Your task to perform on an android device: allow notifications from all sites in the chrome app Image 0: 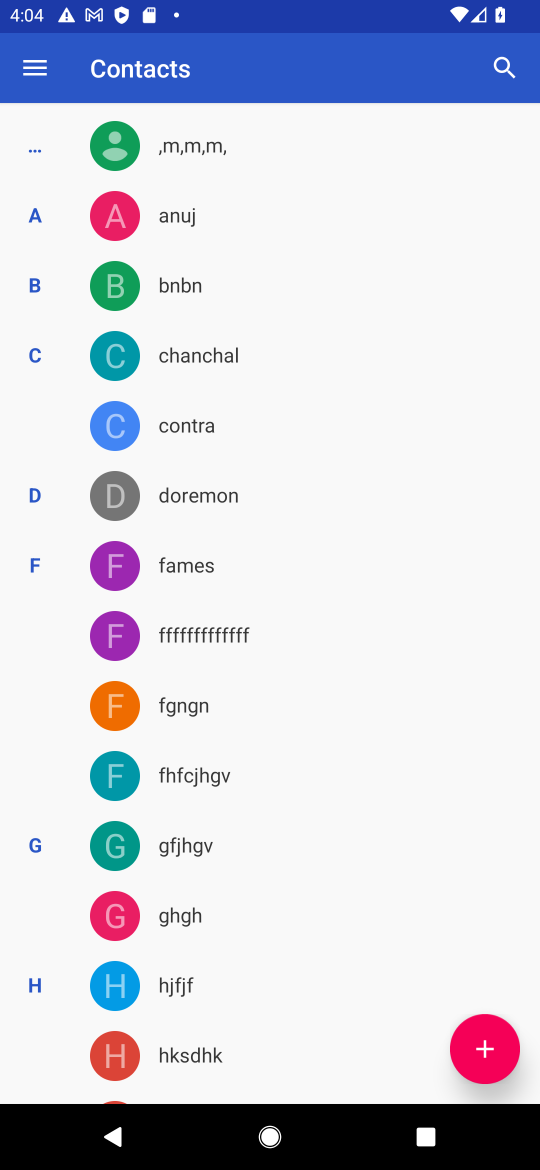
Step 0: press home button
Your task to perform on an android device: allow notifications from all sites in the chrome app Image 1: 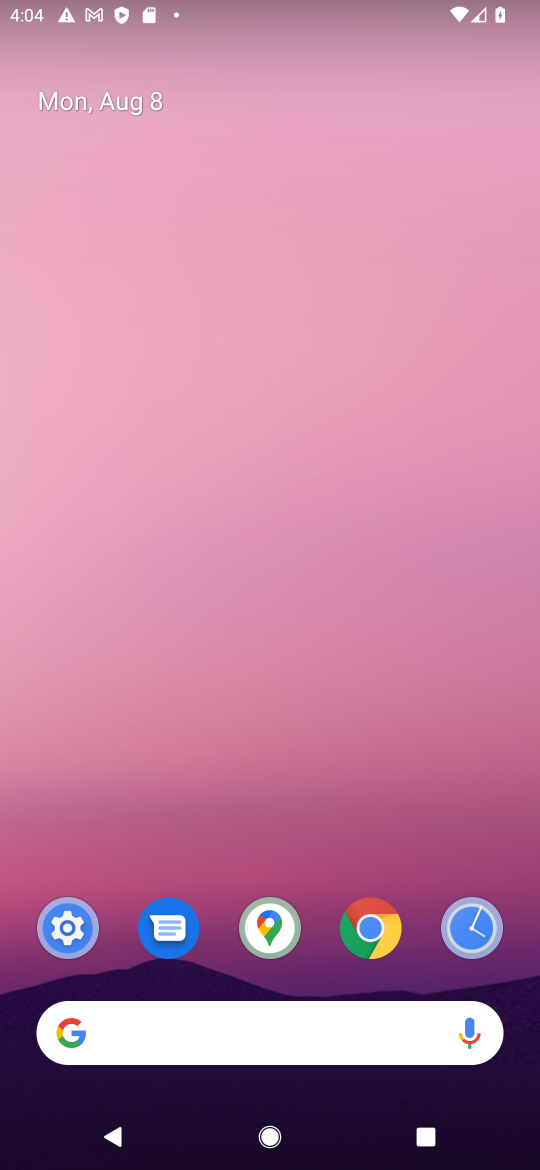
Step 1: click (431, 859)
Your task to perform on an android device: allow notifications from all sites in the chrome app Image 2: 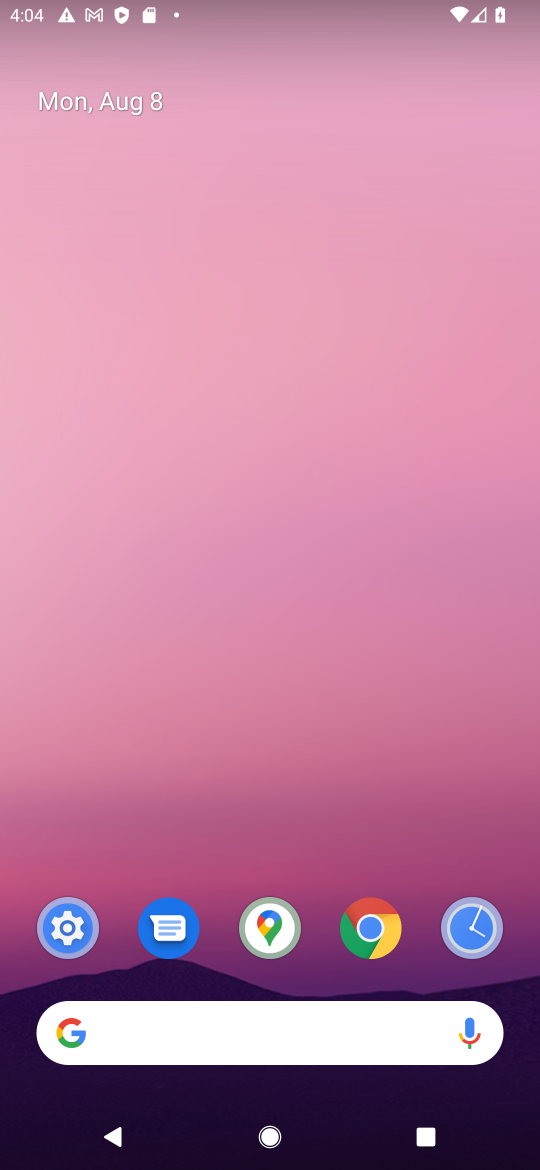
Step 2: click (387, 915)
Your task to perform on an android device: allow notifications from all sites in the chrome app Image 3: 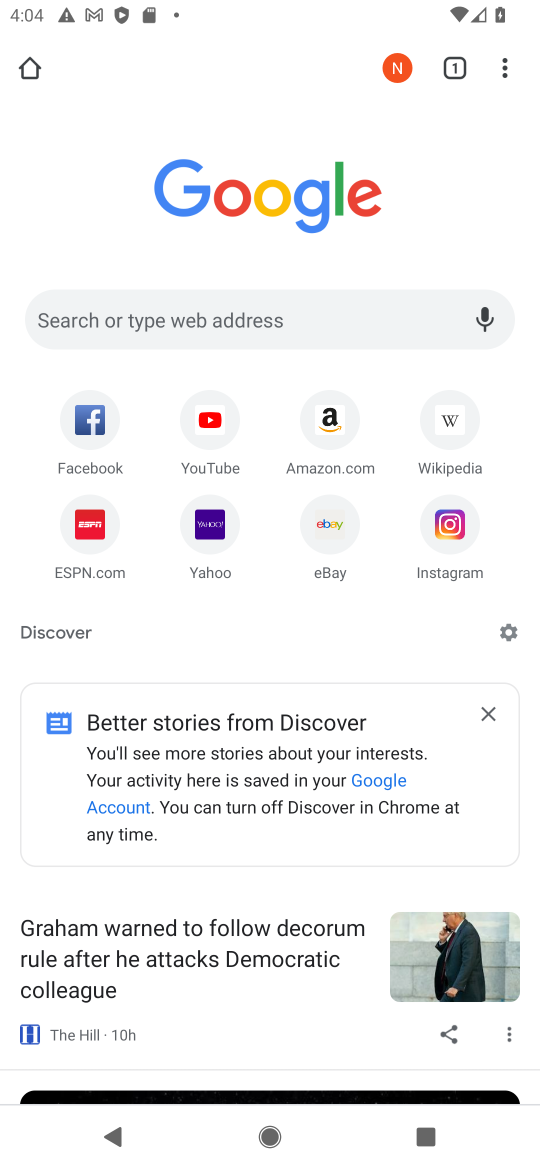
Step 3: click (502, 79)
Your task to perform on an android device: allow notifications from all sites in the chrome app Image 4: 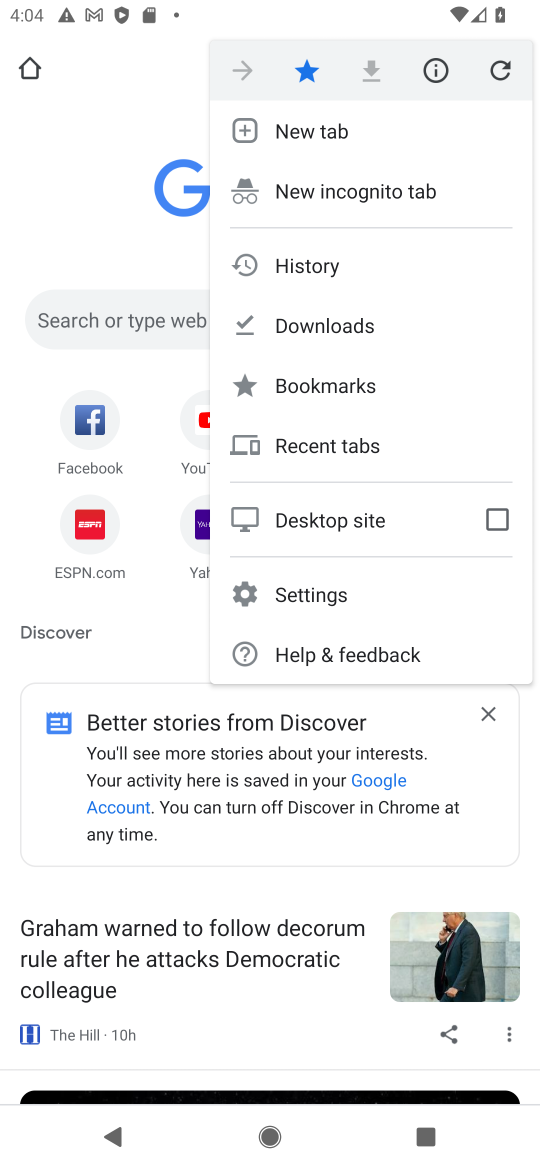
Step 4: click (335, 582)
Your task to perform on an android device: allow notifications from all sites in the chrome app Image 5: 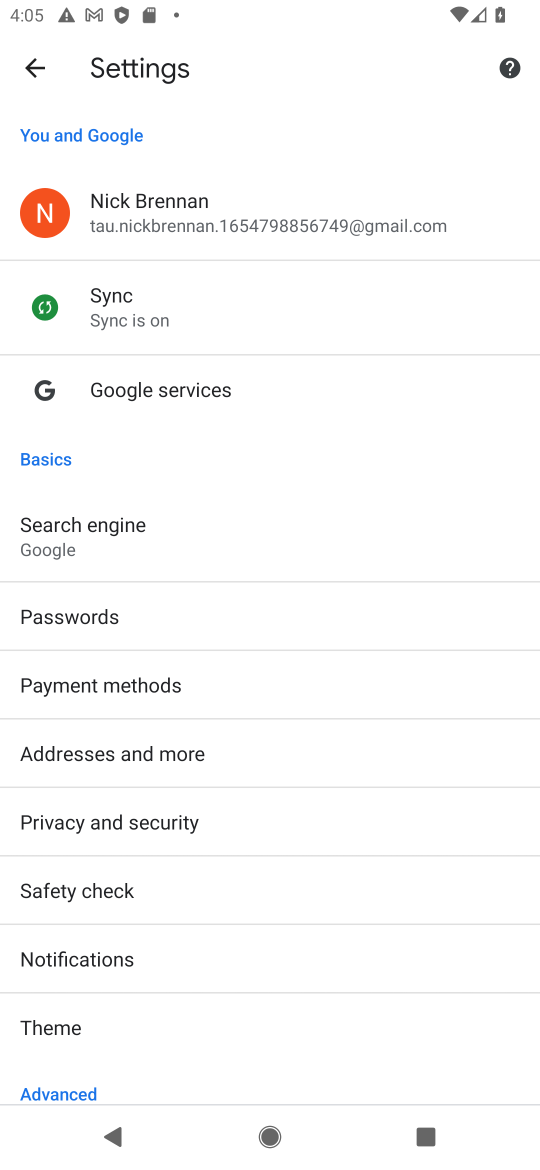
Step 5: drag from (285, 1041) to (280, 293)
Your task to perform on an android device: allow notifications from all sites in the chrome app Image 6: 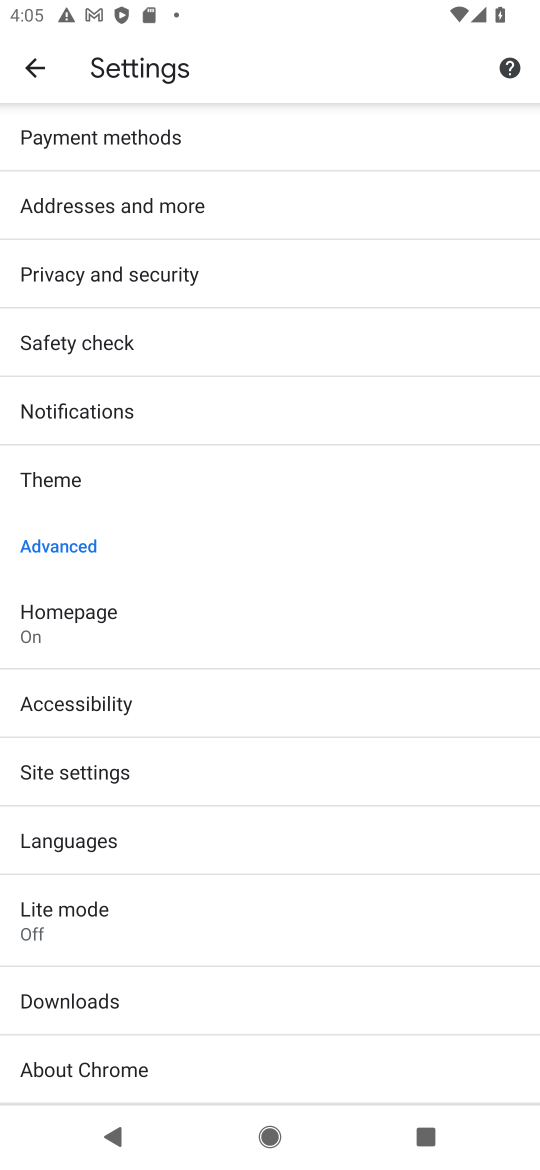
Step 6: click (157, 790)
Your task to perform on an android device: allow notifications from all sites in the chrome app Image 7: 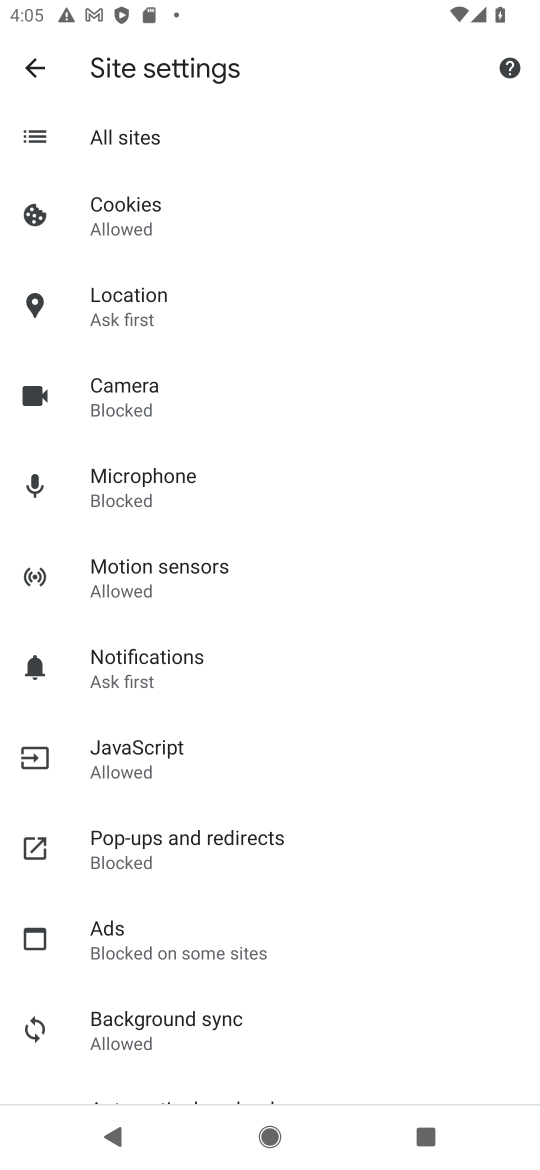
Step 7: click (176, 674)
Your task to perform on an android device: allow notifications from all sites in the chrome app Image 8: 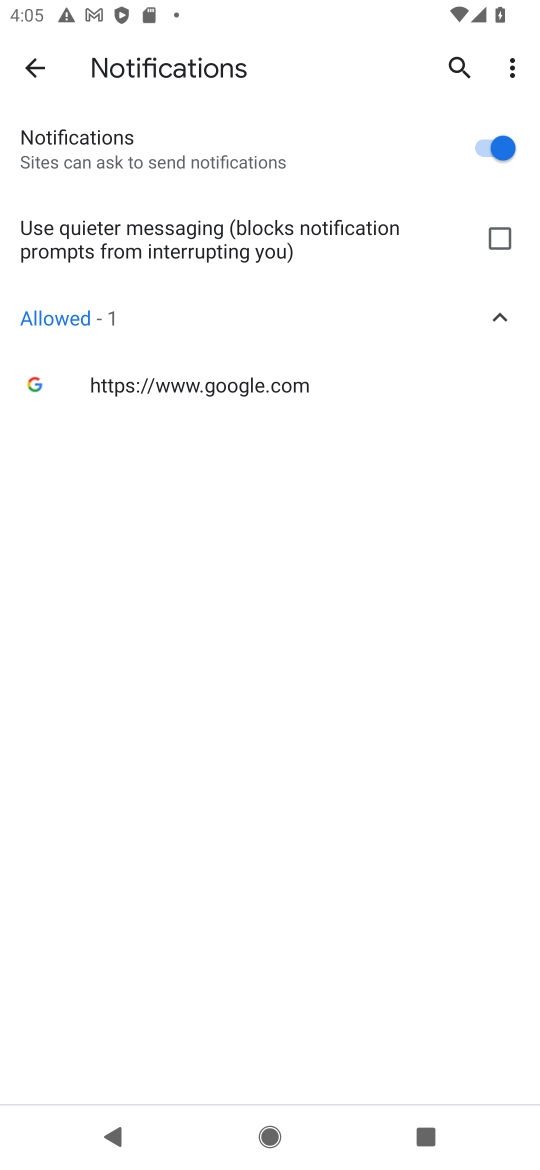
Step 8: task complete